Your task to perform on an android device: Open Maps and search for coffee Image 0: 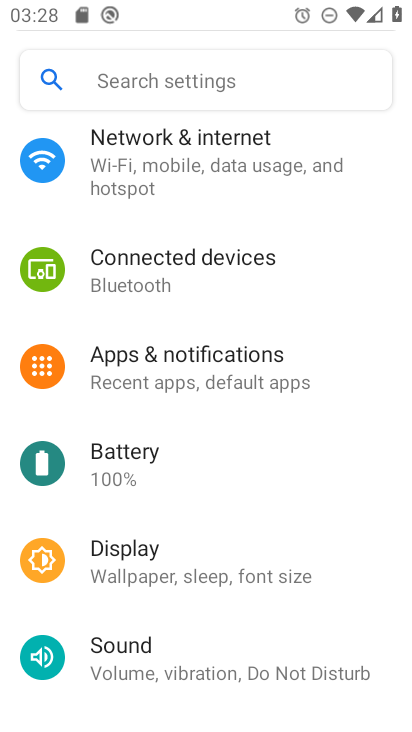
Step 0: press home button
Your task to perform on an android device: Open Maps and search for coffee Image 1: 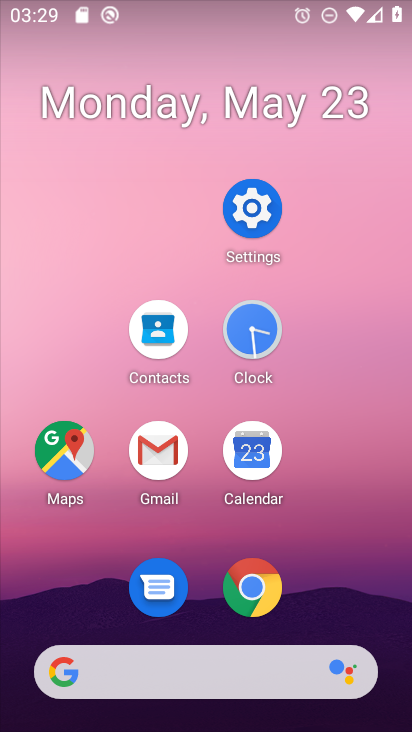
Step 1: click (44, 466)
Your task to perform on an android device: Open Maps and search for coffee Image 2: 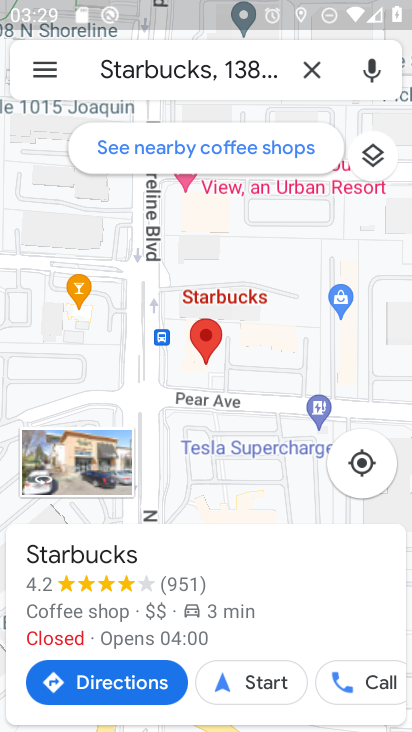
Step 2: task complete